Your task to perform on an android device: change the clock display to show seconds Image 0: 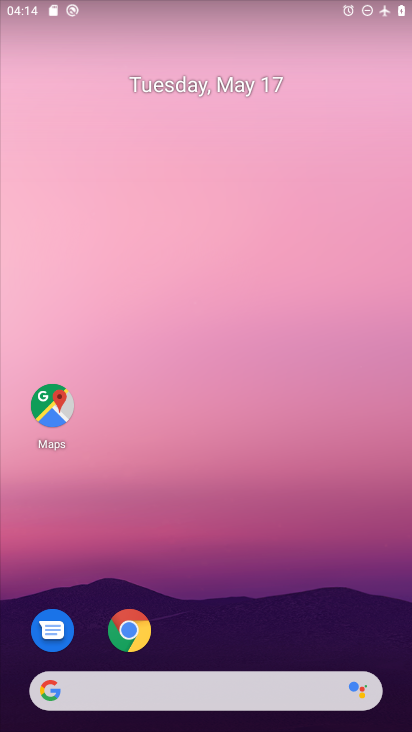
Step 0: drag from (215, 561) to (224, 113)
Your task to perform on an android device: change the clock display to show seconds Image 1: 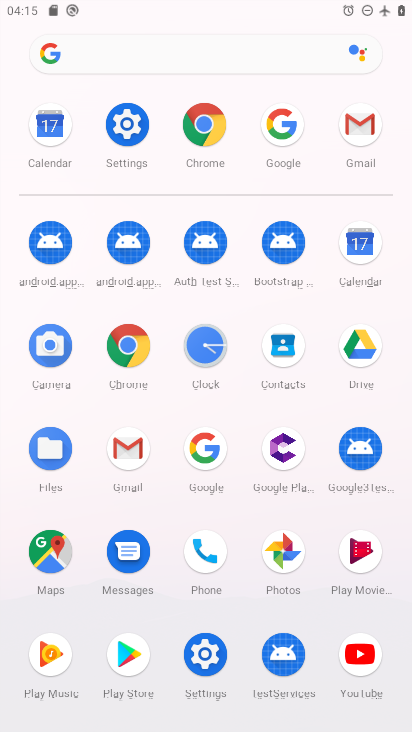
Step 1: click (196, 336)
Your task to perform on an android device: change the clock display to show seconds Image 2: 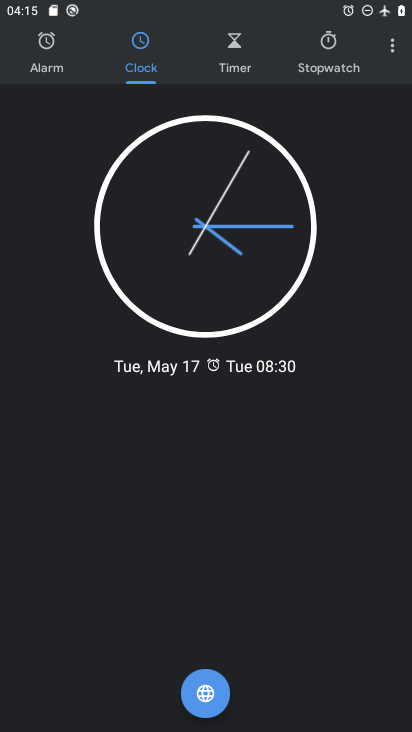
Step 2: click (390, 49)
Your task to perform on an android device: change the clock display to show seconds Image 3: 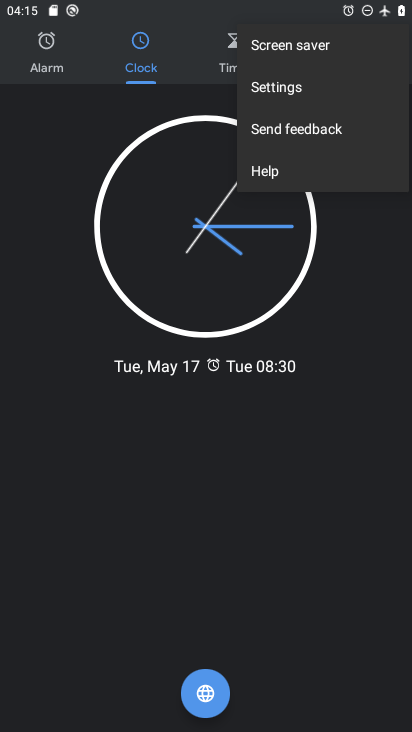
Step 3: click (309, 89)
Your task to perform on an android device: change the clock display to show seconds Image 4: 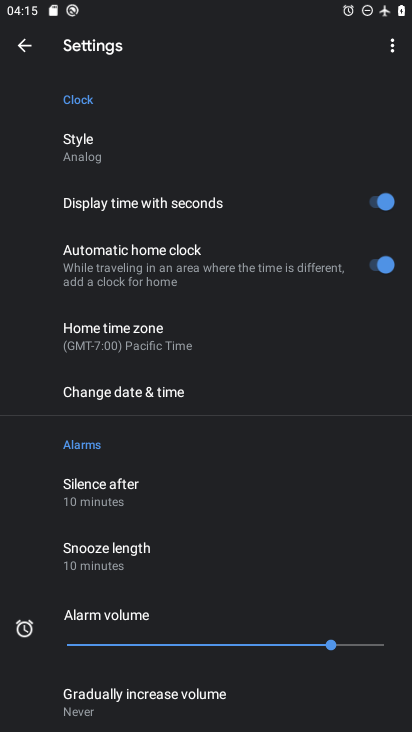
Step 4: click (112, 142)
Your task to perform on an android device: change the clock display to show seconds Image 5: 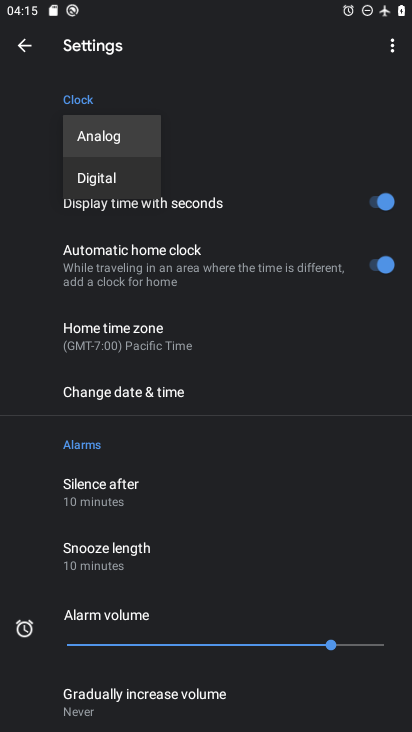
Step 5: click (105, 168)
Your task to perform on an android device: change the clock display to show seconds Image 6: 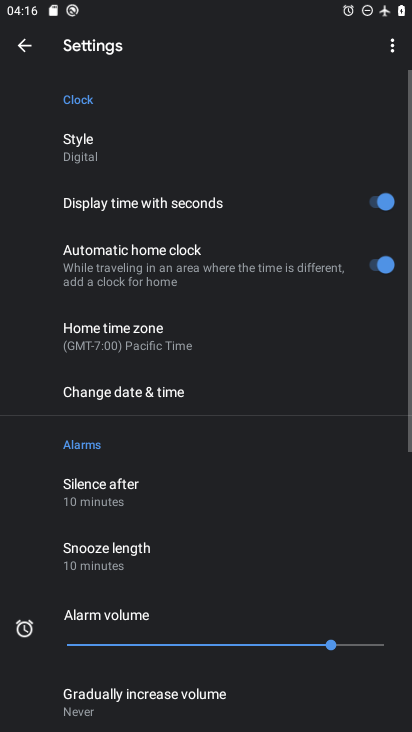
Step 6: task complete